Your task to perform on an android device: Install the Facebook app Image 0: 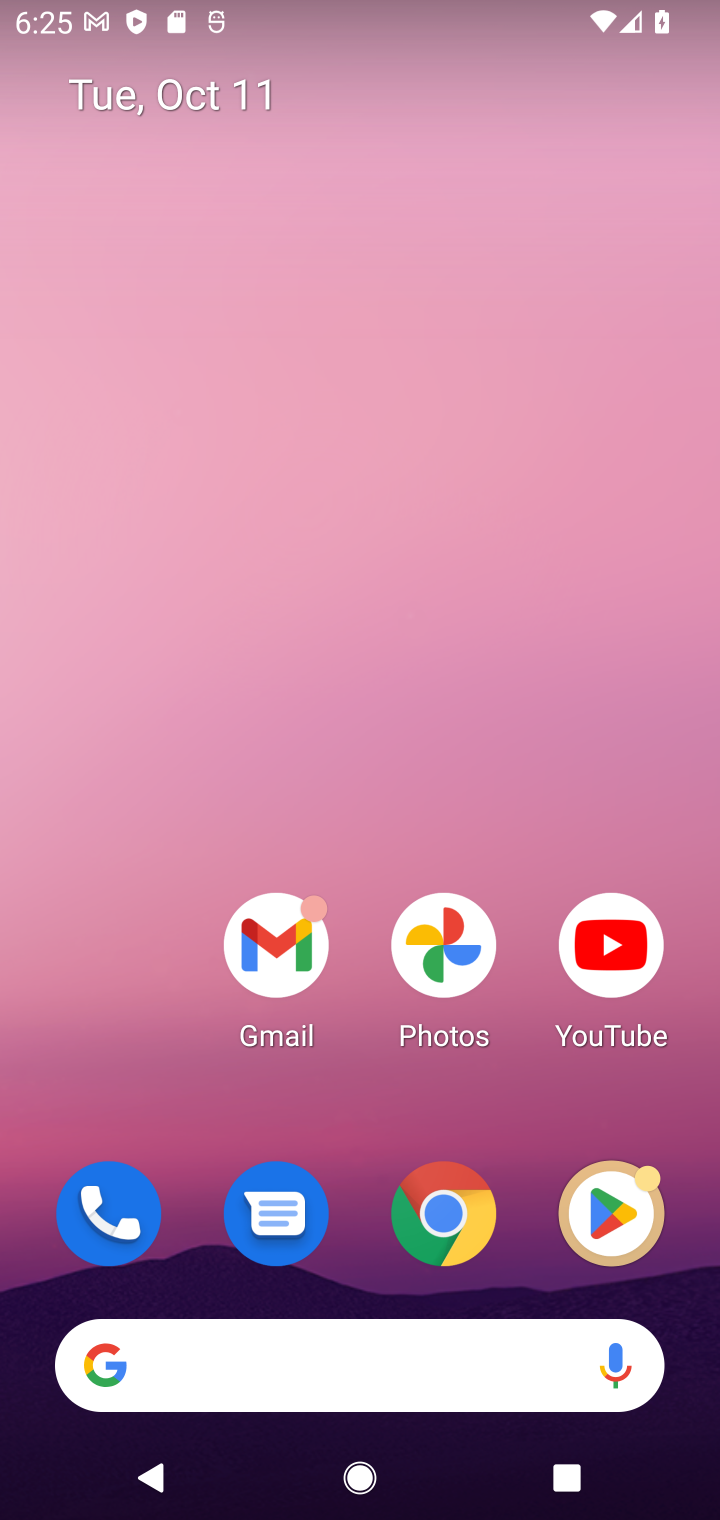
Step 0: drag from (432, 1327) to (343, 434)
Your task to perform on an android device: Install the Facebook app Image 1: 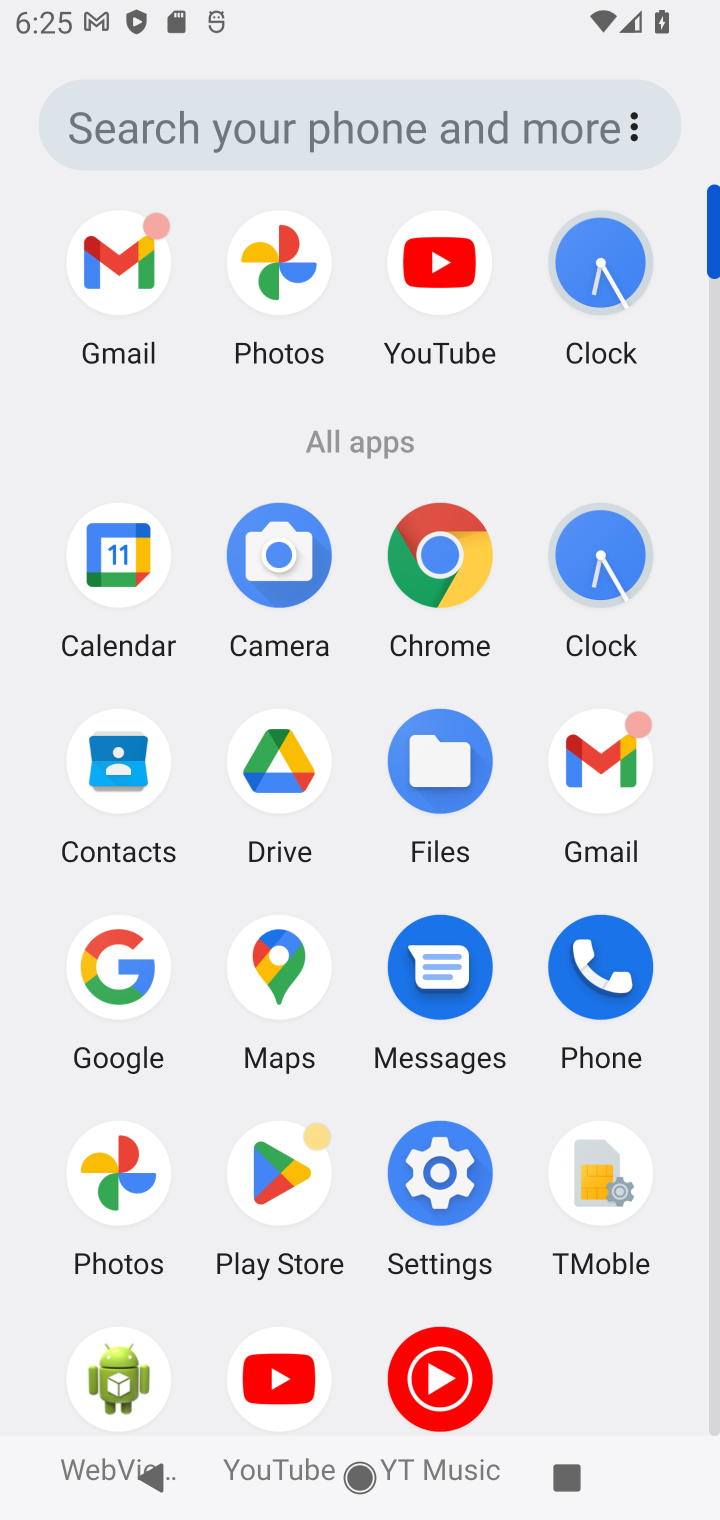
Step 1: click (289, 1166)
Your task to perform on an android device: Install the Facebook app Image 2: 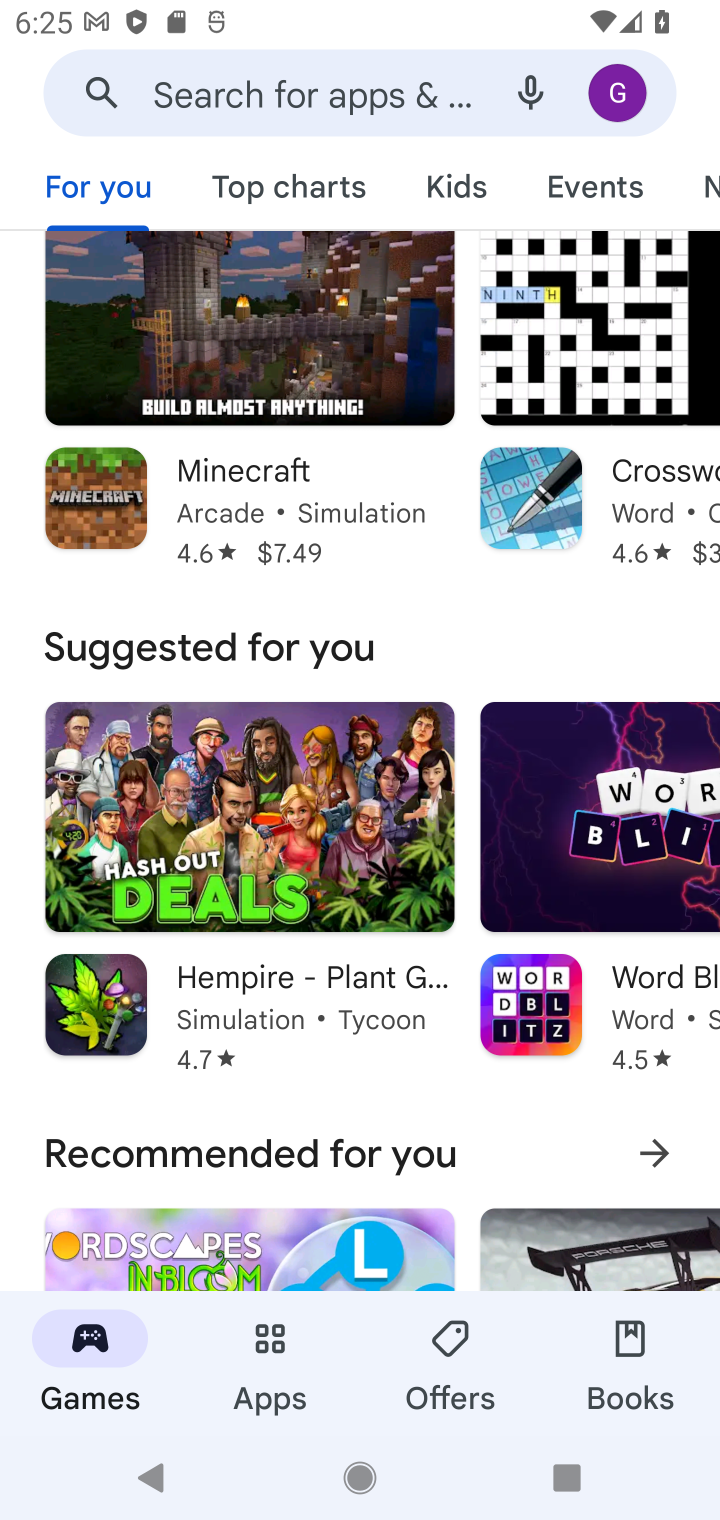
Step 2: click (313, 77)
Your task to perform on an android device: Install the Facebook app Image 3: 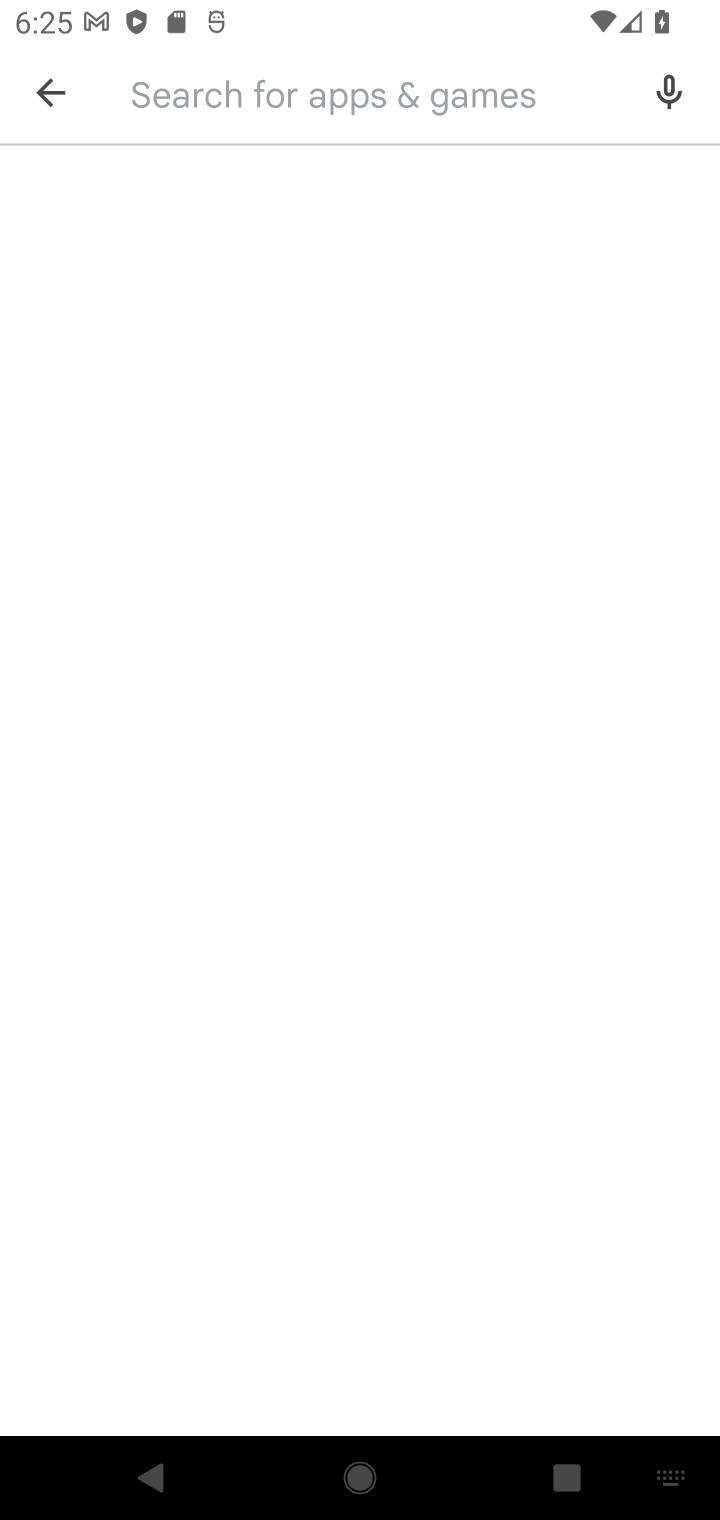
Step 3: click (203, 84)
Your task to perform on an android device: Install the Facebook app Image 4: 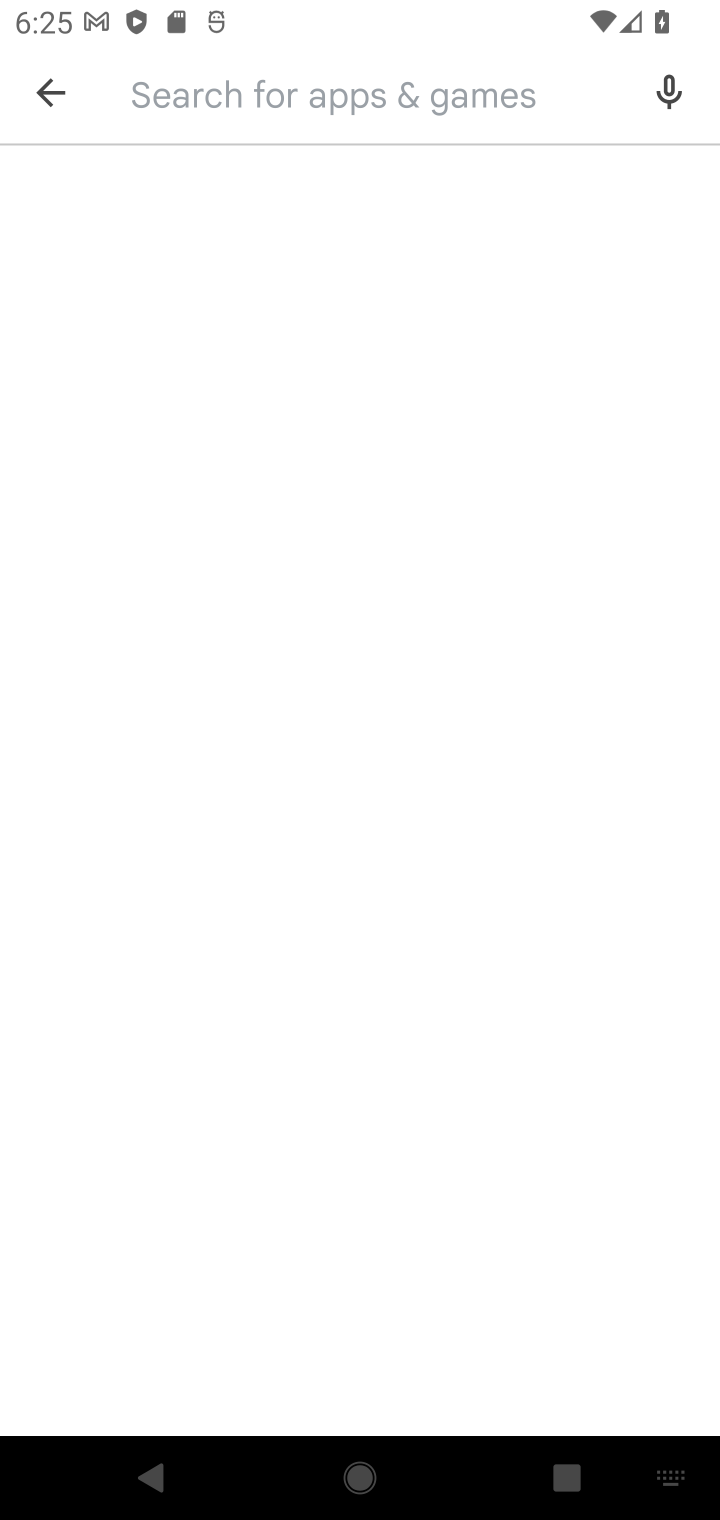
Step 4: type "Facebook app "
Your task to perform on an android device: Install the Facebook app Image 5: 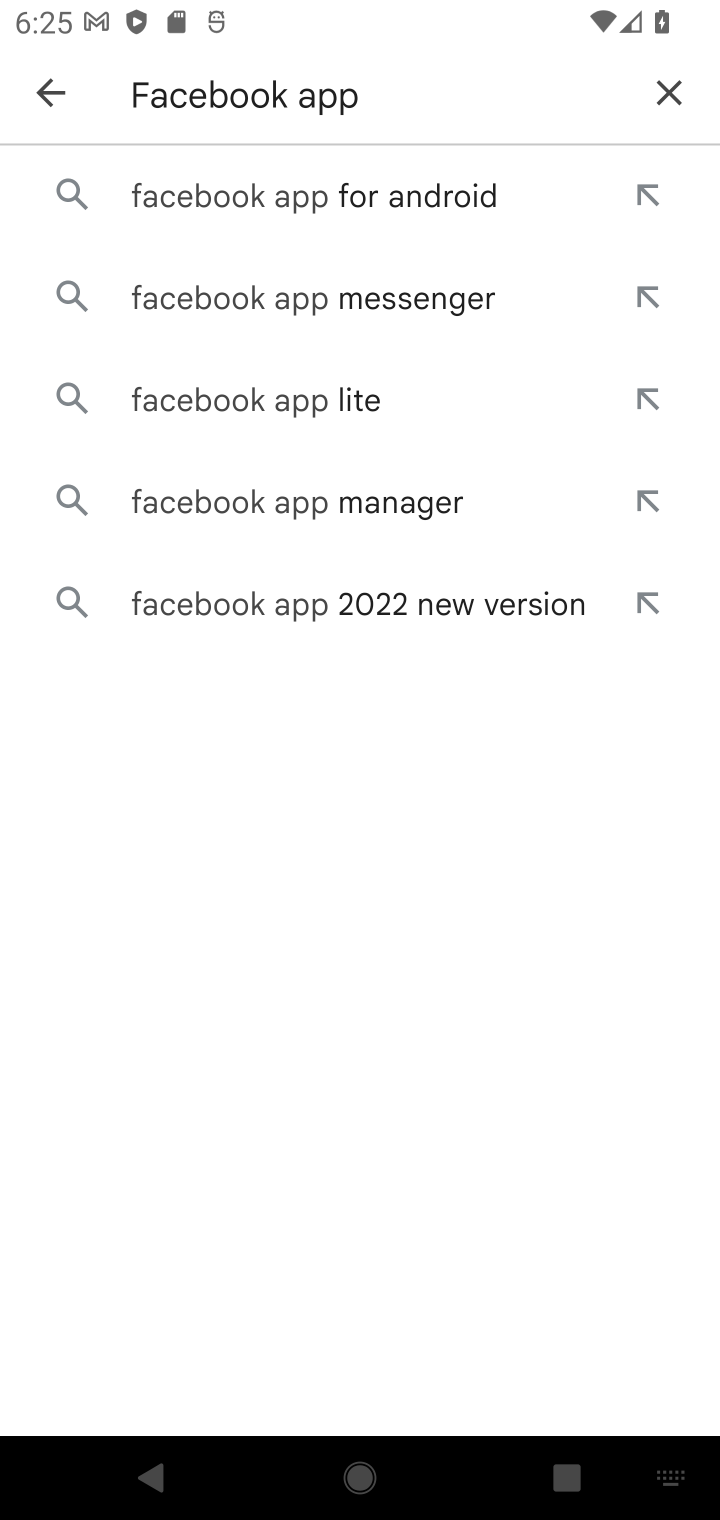
Step 5: click (321, 190)
Your task to perform on an android device: Install the Facebook app Image 6: 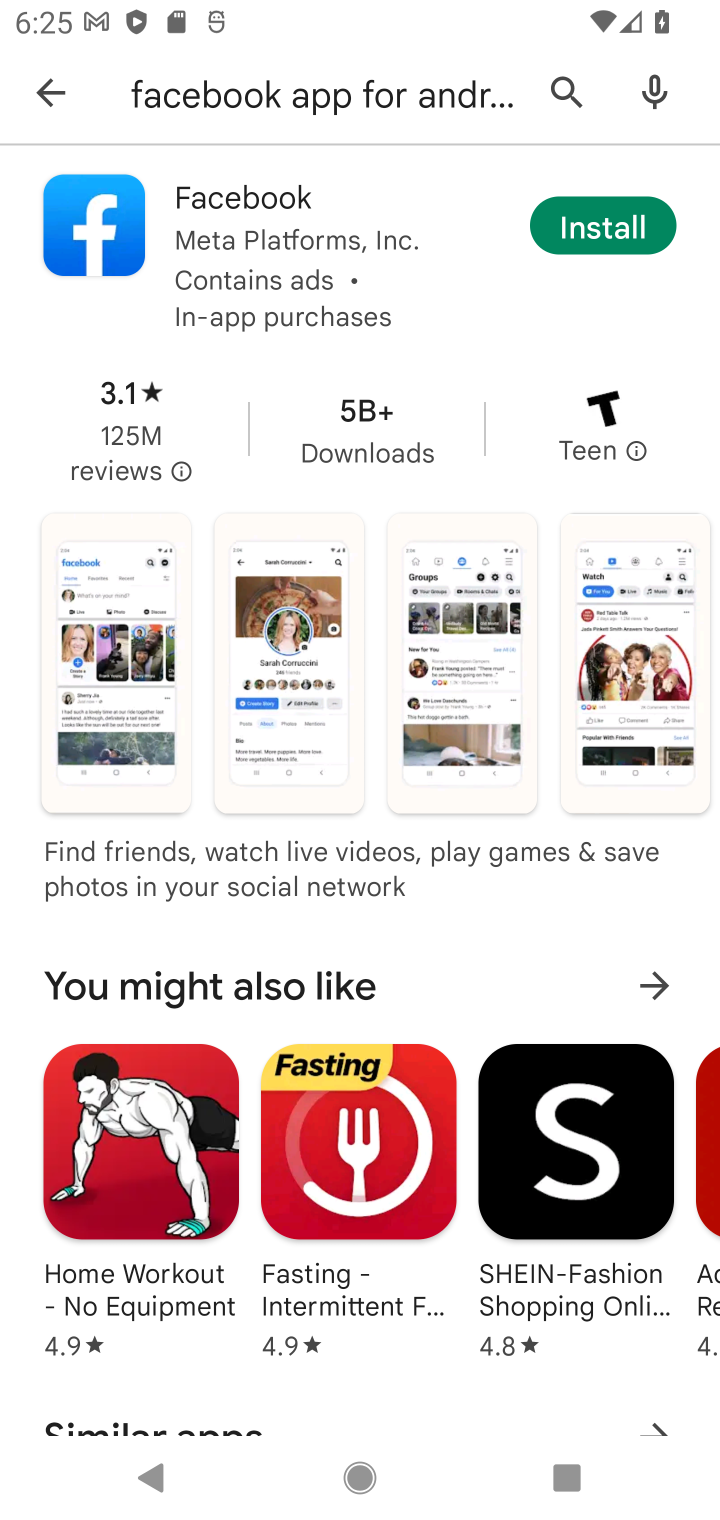
Step 6: click (595, 223)
Your task to perform on an android device: Install the Facebook app Image 7: 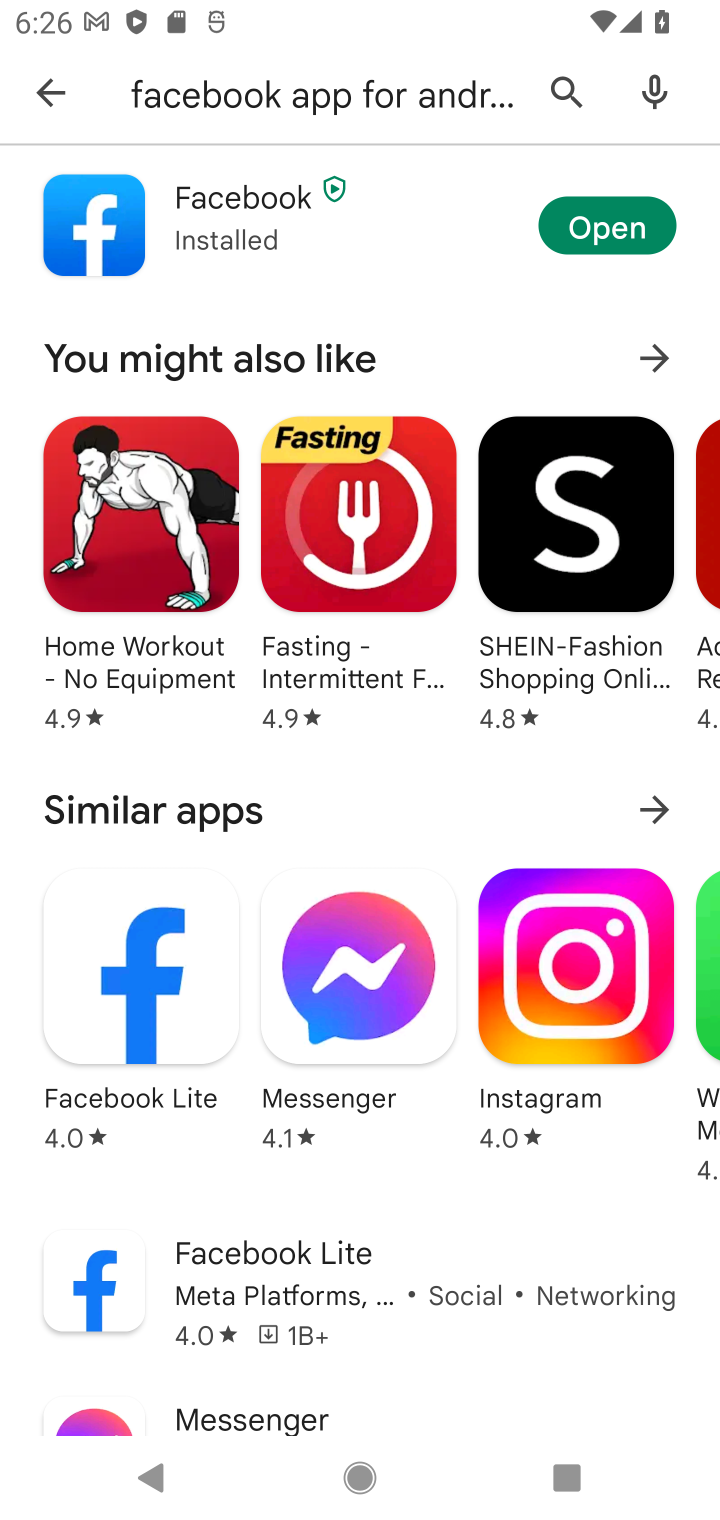
Step 7: click (607, 214)
Your task to perform on an android device: Install the Facebook app Image 8: 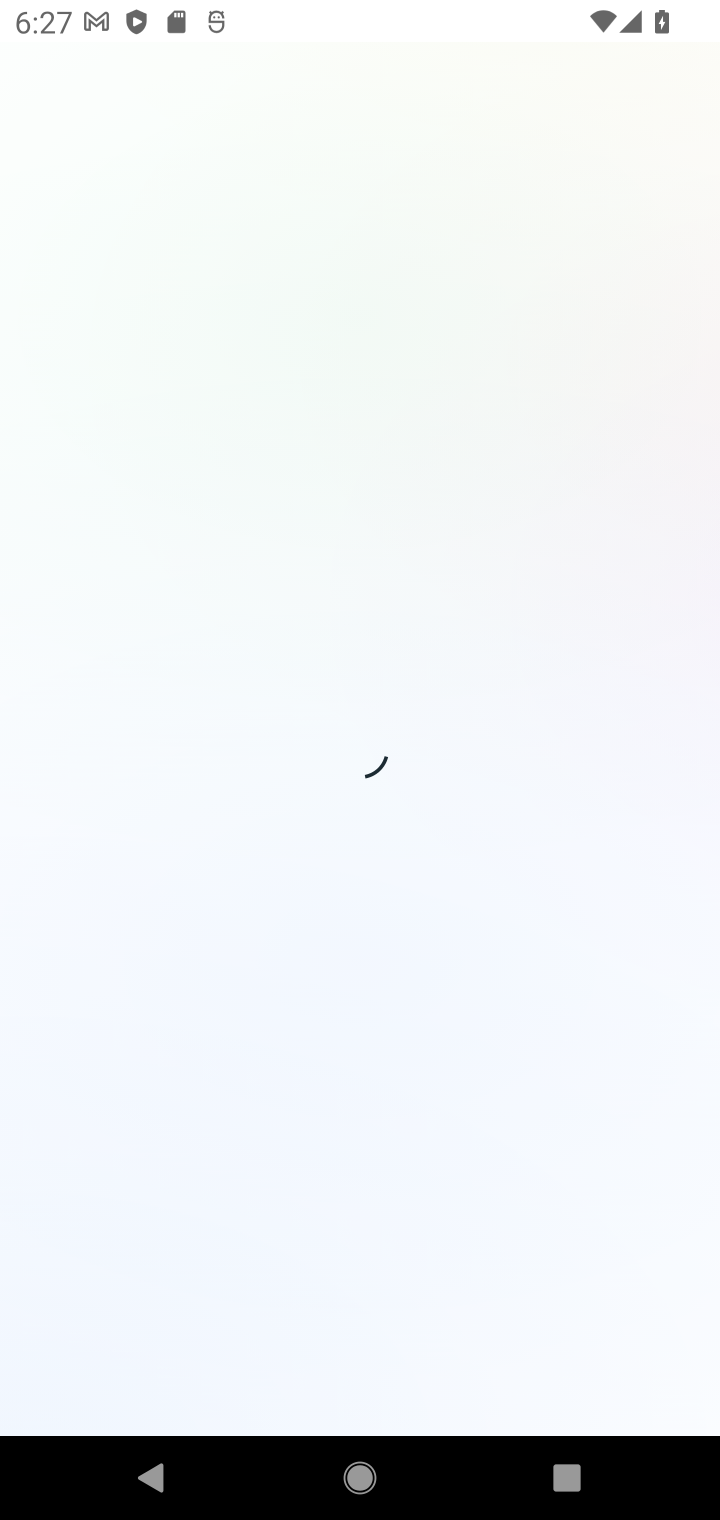
Step 8: task complete